Your task to perform on an android device: Open eBay Image 0: 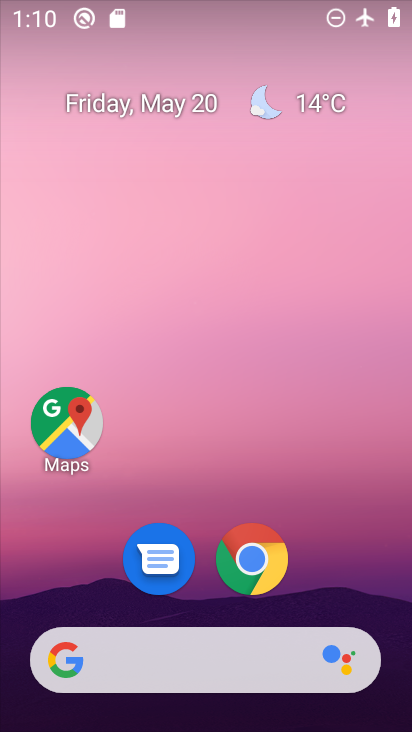
Step 0: click (244, 563)
Your task to perform on an android device: Open eBay Image 1: 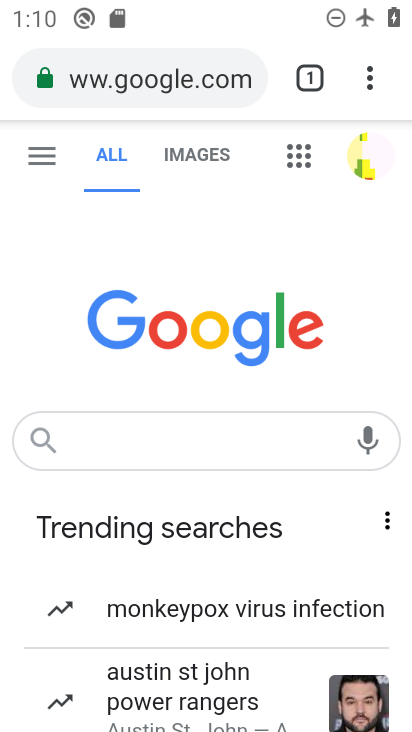
Step 1: click (186, 93)
Your task to perform on an android device: Open eBay Image 2: 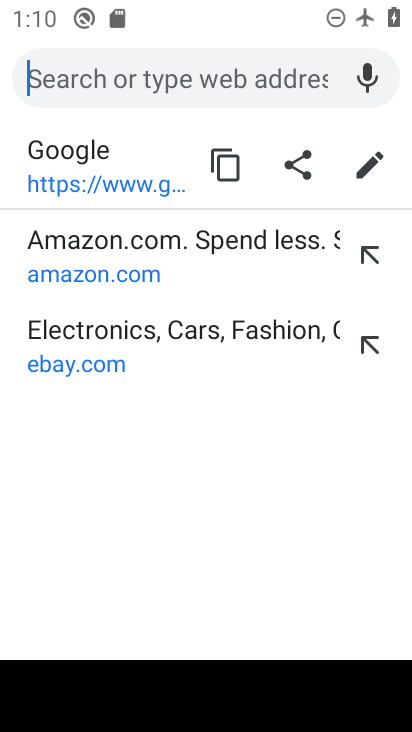
Step 2: type "ebay.com"
Your task to perform on an android device: Open eBay Image 3: 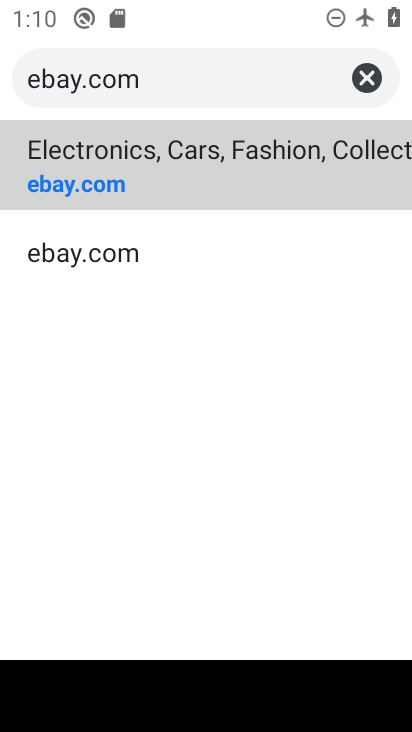
Step 3: click (211, 177)
Your task to perform on an android device: Open eBay Image 4: 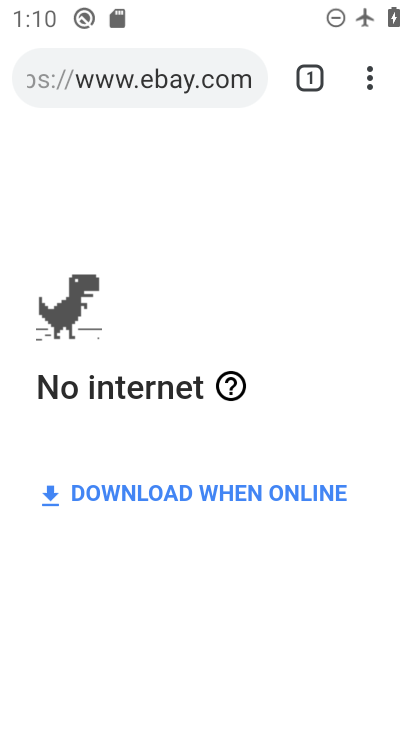
Step 4: task complete